Your task to perform on an android device: Open Youtube and go to "Your channel" Image 0: 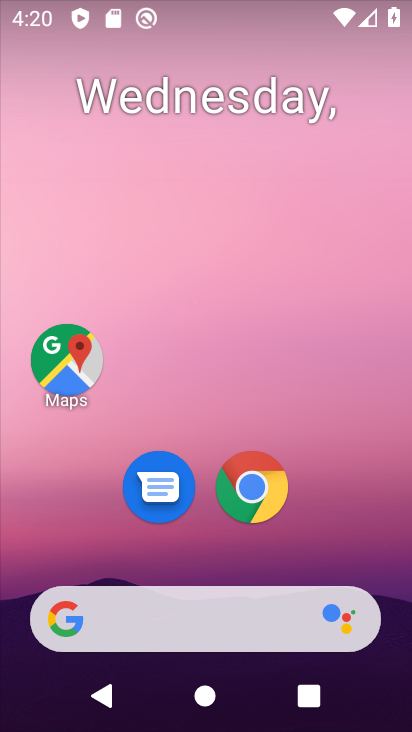
Step 0: drag from (322, 518) to (323, 10)
Your task to perform on an android device: Open Youtube and go to "Your channel" Image 1: 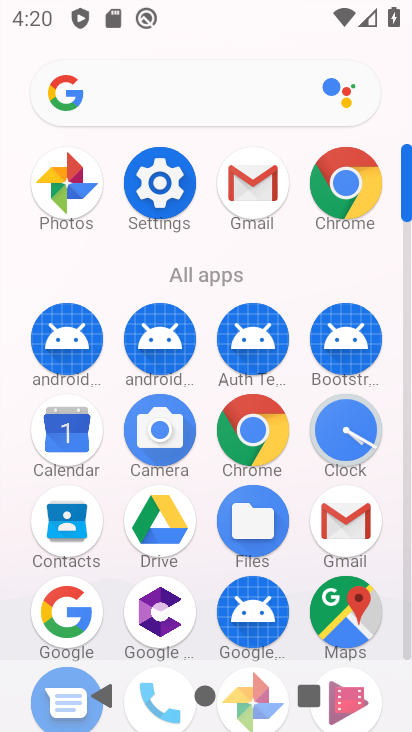
Step 1: drag from (295, 530) to (299, 172)
Your task to perform on an android device: Open Youtube and go to "Your channel" Image 2: 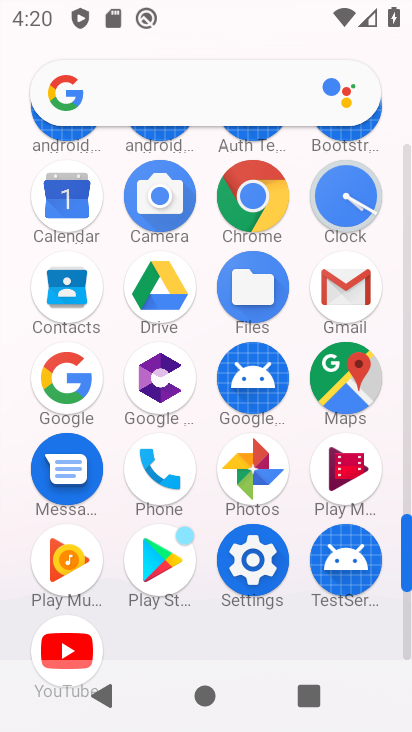
Step 2: click (338, 480)
Your task to perform on an android device: Open Youtube and go to "Your channel" Image 3: 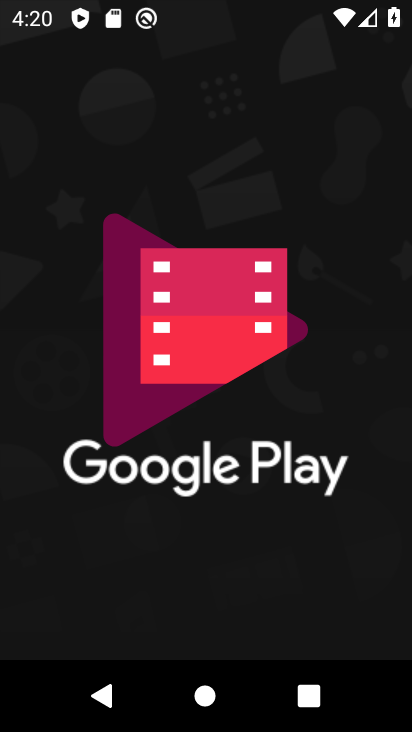
Step 3: press home button
Your task to perform on an android device: Open Youtube and go to "Your channel" Image 4: 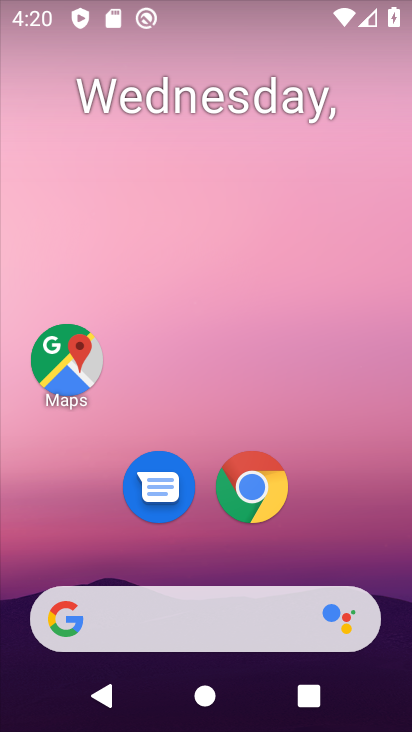
Step 4: drag from (334, 504) to (335, 94)
Your task to perform on an android device: Open Youtube and go to "Your channel" Image 5: 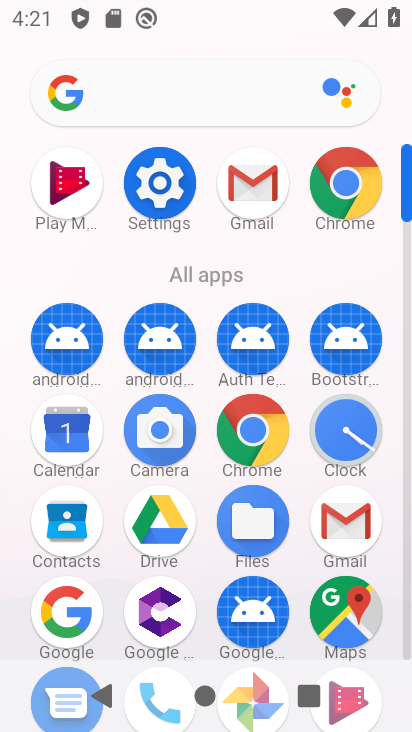
Step 5: drag from (290, 568) to (326, 215)
Your task to perform on an android device: Open Youtube and go to "Your channel" Image 6: 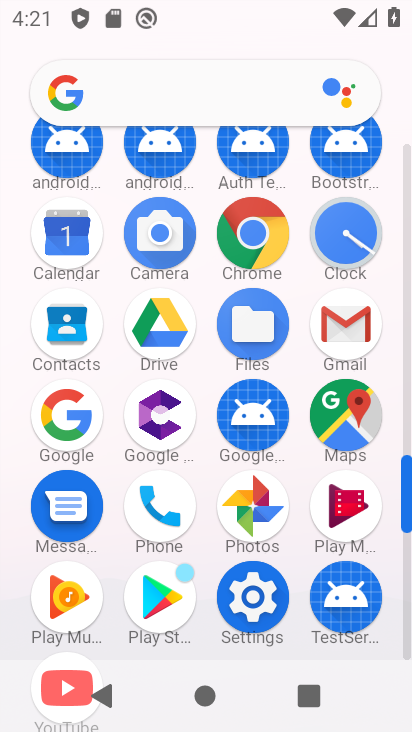
Step 6: drag from (119, 555) to (143, 292)
Your task to perform on an android device: Open Youtube and go to "Your channel" Image 7: 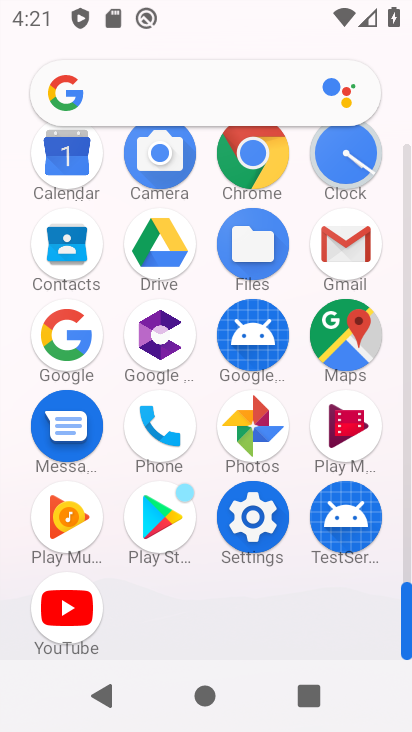
Step 7: click (87, 605)
Your task to perform on an android device: Open Youtube and go to "Your channel" Image 8: 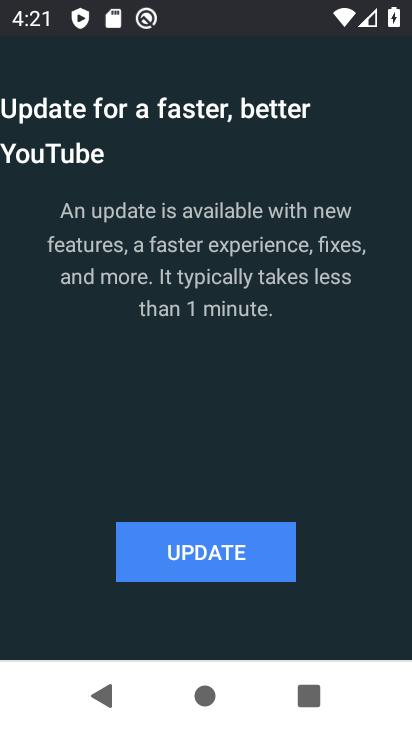
Step 8: click (231, 546)
Your task to perform on an android device: Open Youtube and go to "Your channel" Image 9: 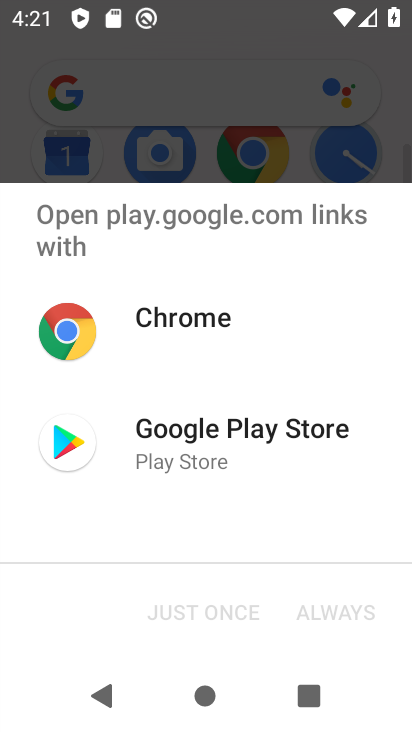
Step 9: click (163, 420)
Your task to perform on an android device: Open Youtube and go to "Your channel" Image 10: 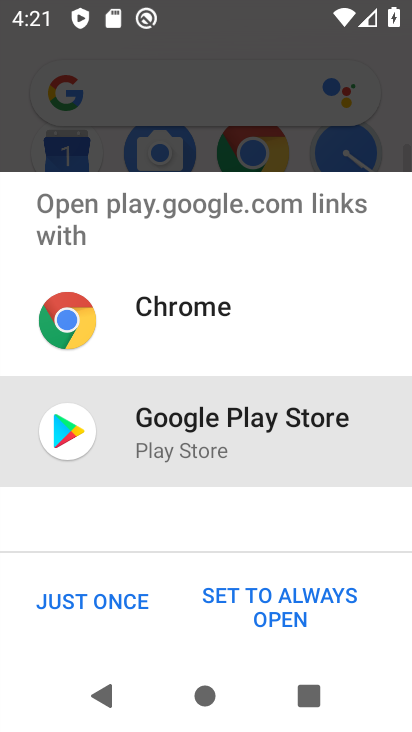
Step 10: click (132, 602)
Your task to perform on an android device: Open Youtube and go to "Your channel" Image 11: 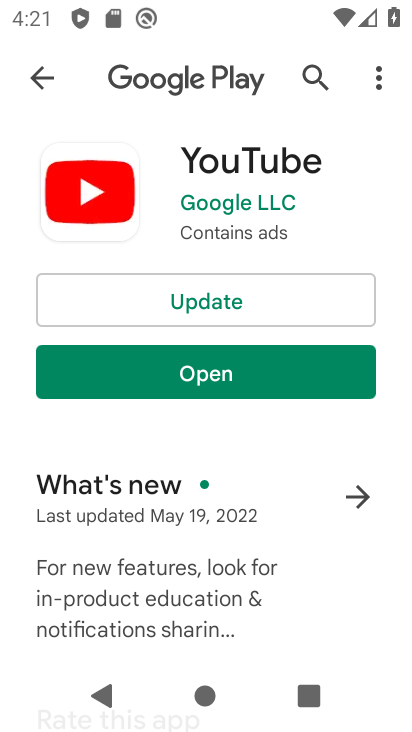
Step 11: click (220, 292)
Your task to perform on an android device: Open Youtube and go to "Your channel" Image 12: 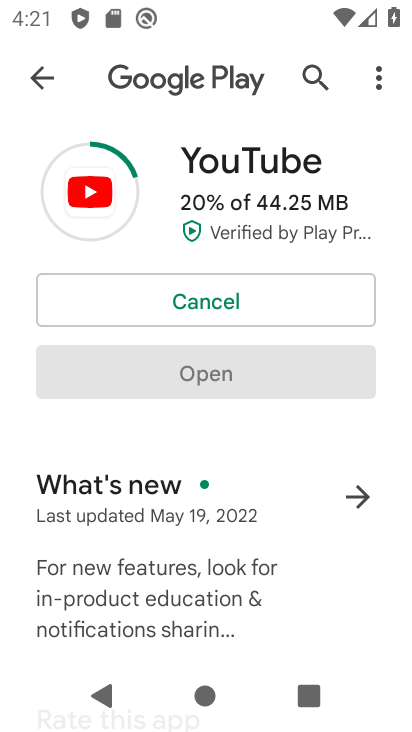
Step 12: task complete